Your task to perform on an android device: add a contact in the contacts app Image 0: 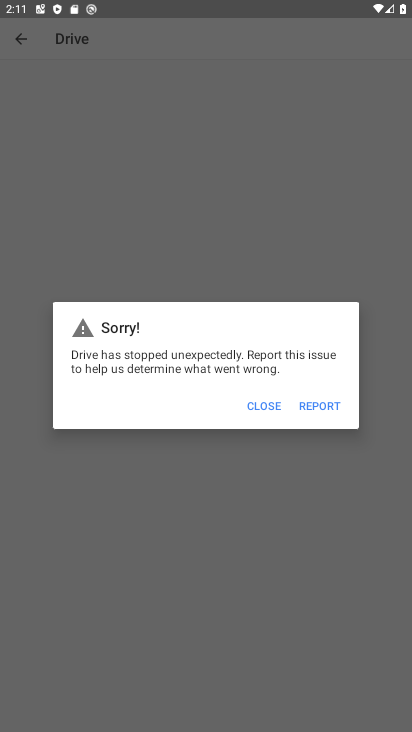
Step 0: press home button
Your task to perform on an android device: add a contact in the contacts app Image 1: 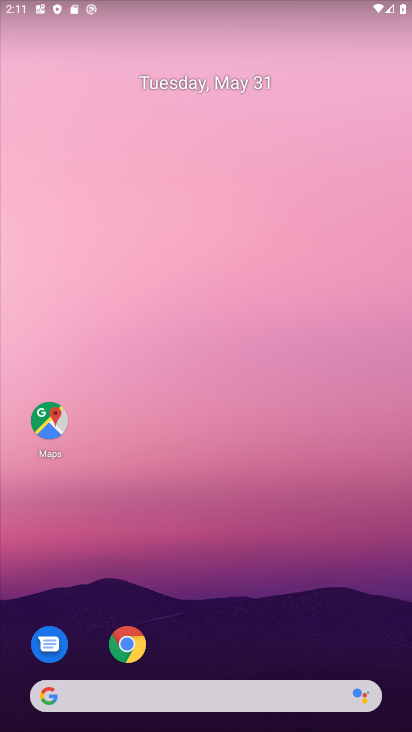
Step 1: drag from (398, 715) to (348, 196)
Your task to perform on an android device: add a contact in the contacts app Image 2: 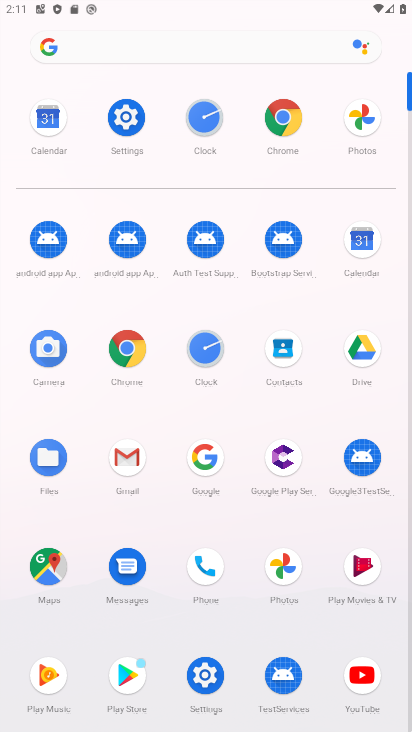
Step 2: click (286, 350)
Your task to perform on an android device: add a contact in the contacts app Image 3: 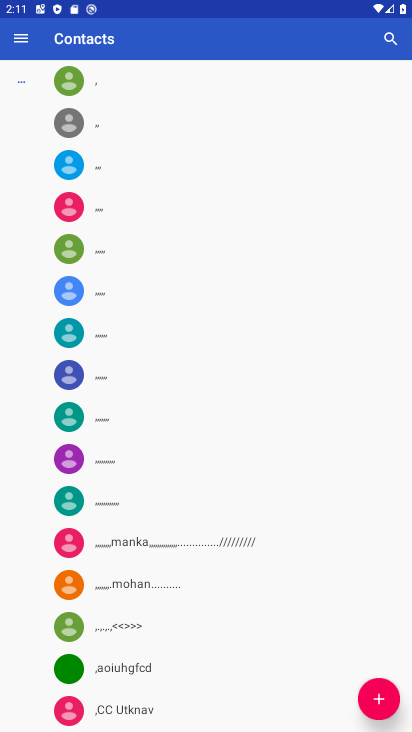
Step 3: click (360, 696)
Your task to perform on an android device: add a contact in the contacts app Image 4: 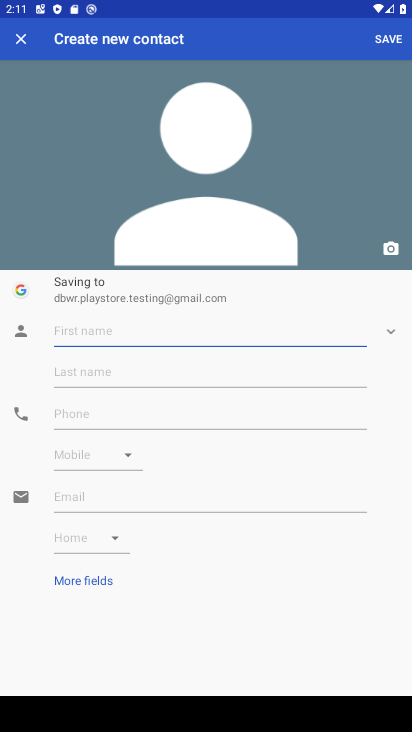
Step 4: type "xgfhhgchc"
Your task to perform on an android device: add a contact in the contacts app Image 5: 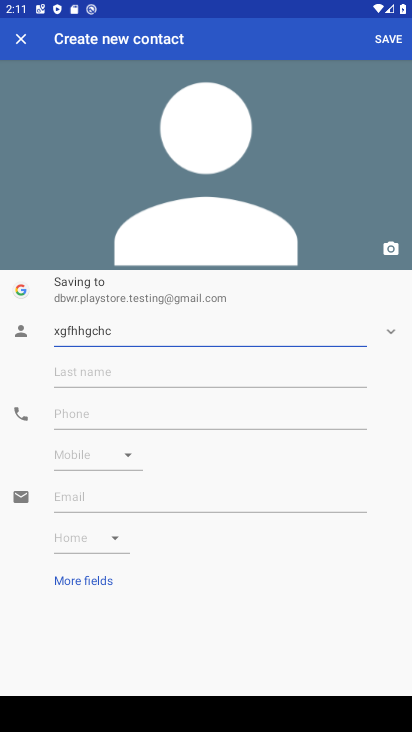
Step 5: click (96, 379)
Your task to perform on an android device: add a contact in the contacts app Image 6: 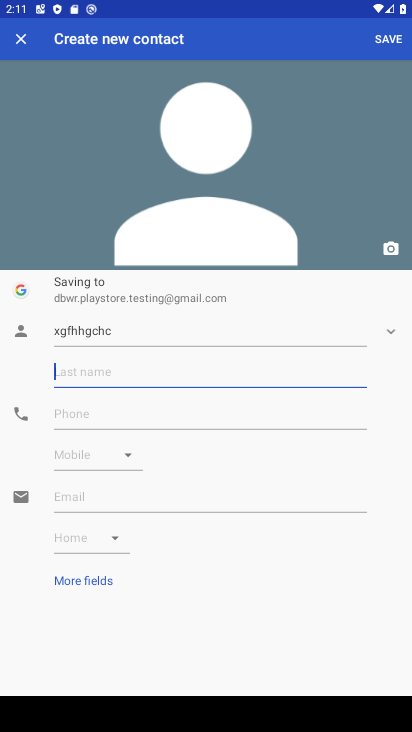
Step 6: type "cffjfjj"
Your task to perform on an android device: add a contact in the contacts app Image 7: 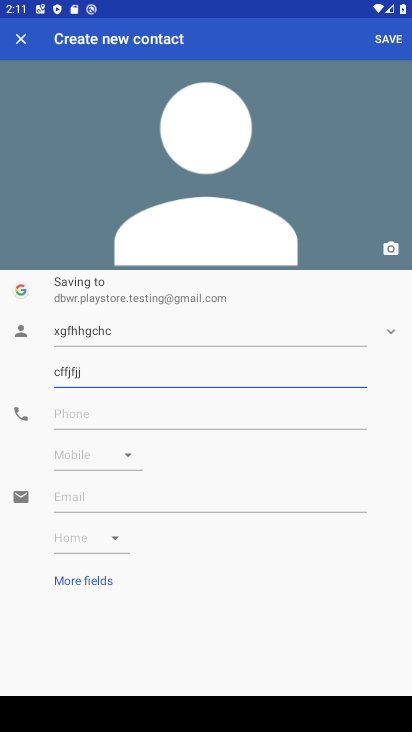
Step 7: click (90, 412)
Your task to perform on an android device: add a contact in the contacts app Image 8: 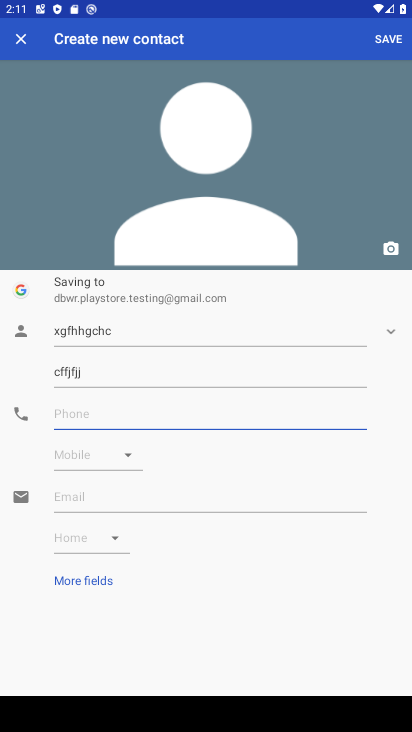
Step 8: type "674477474674644"
Your task to perform on an android device: add a contact in the contacts app Image 9: 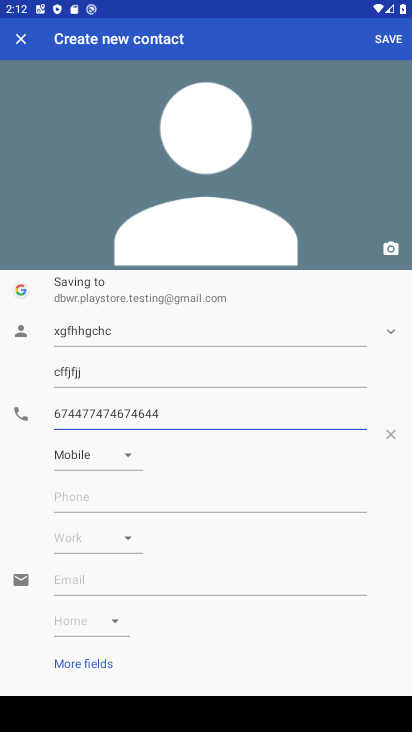
Step 9: click (380, 35)
Your task to perform on an android device: add a contact in the contacts app Image 10: 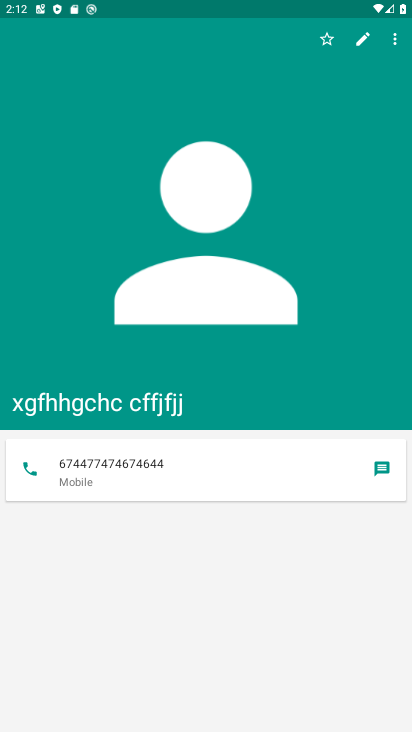
Step 10: task complete